Your task to perform on an android device: turn on the 12-hour format for clock Image 0: 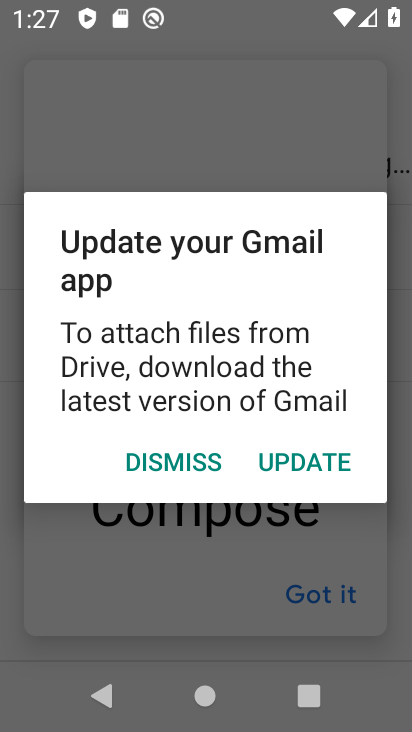
Step 0: press home button
Your task to perform on an android device: turn on the 12-hour format for clock Image 1: 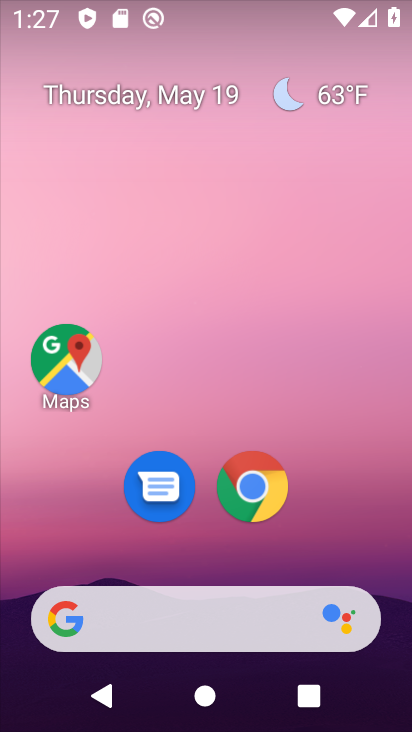
Step 1: drag from (224, 540) to (222, 82)
Your task to perform on an android device: turn on the 12-hour format for clock Image 2: 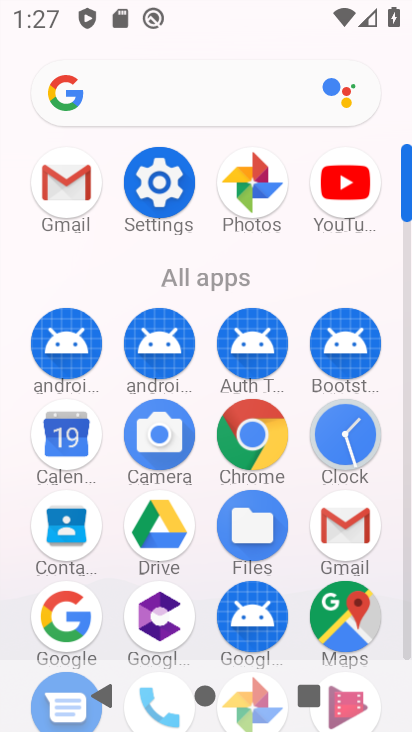
Step 2: click (332, 440)
Your task to perform on an android device: turn on the 12-hour format for clock Image 3: 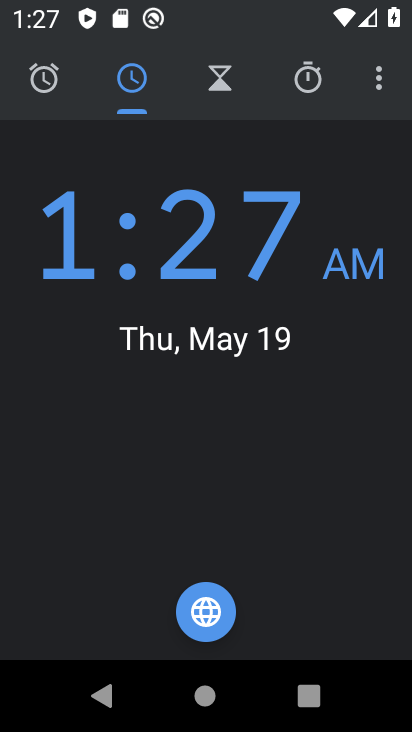
Step 3: click (377, 90)
Your task to perform on an android device: turn on the 12-hour format for clock Image 4: 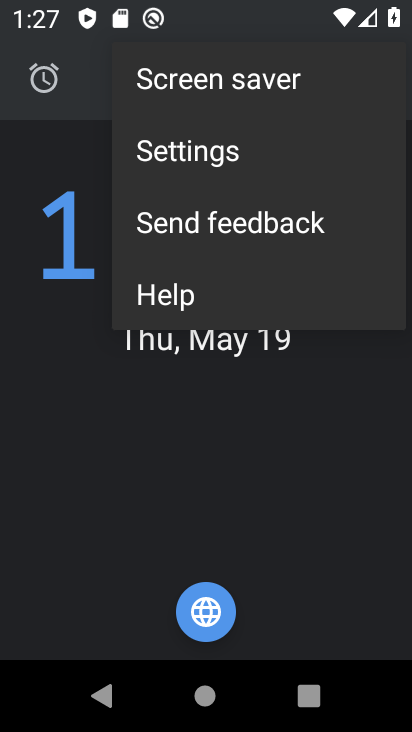
Step 4: click (224, 163)
Your task to perform on an android device: turn on the 12-hour format for clock Image 5: 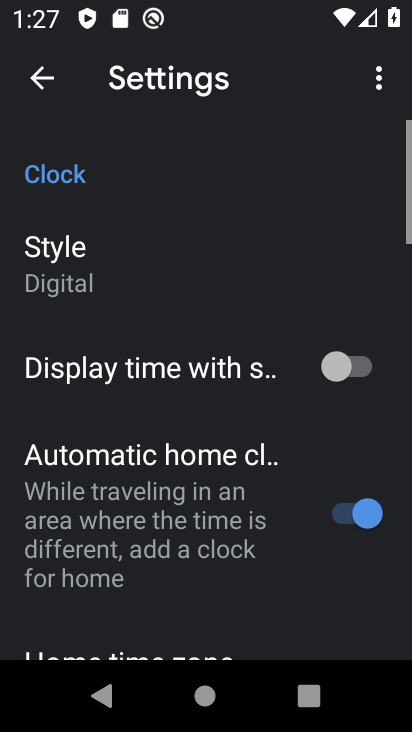
Step 5: drag from (233, 524) to (241, 164)
Your task to perform on an android device: turn on the 12-hour format for clock Image 6: 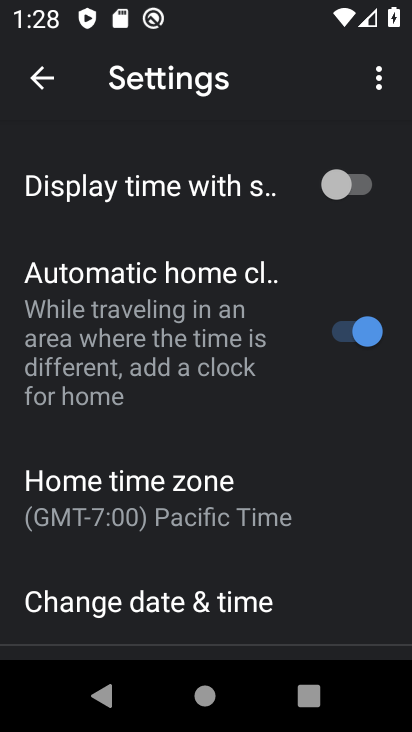
Step 6: click (222, 589)
Your task to perform on an android device: turn on the 12-hour format for clock Image 7: 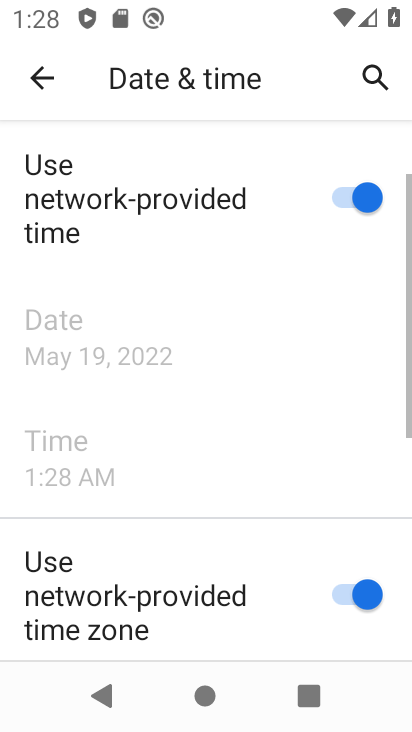
Step 7: task complete